Your task to perform on an android device: set the stopwatch Image 0: 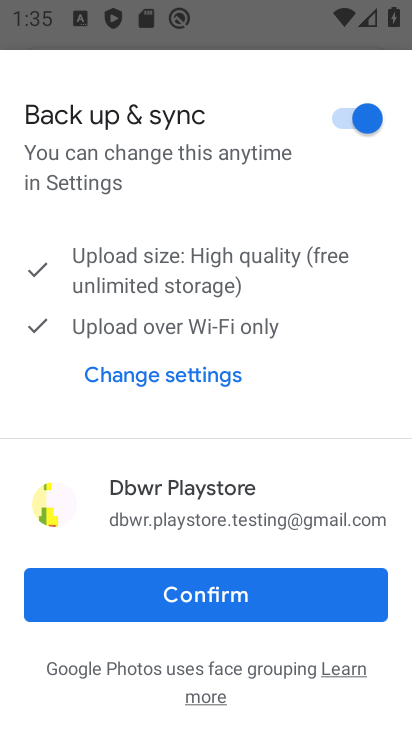
Step 0: press back button
Your task to perform on an android device: set the stopwatch Image 1: 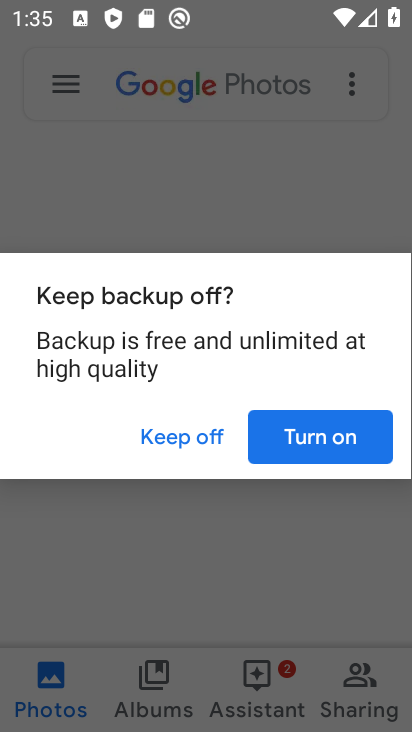
Step 1: press home button
Your task to perform on an android device: set the stopwatch Image 2: 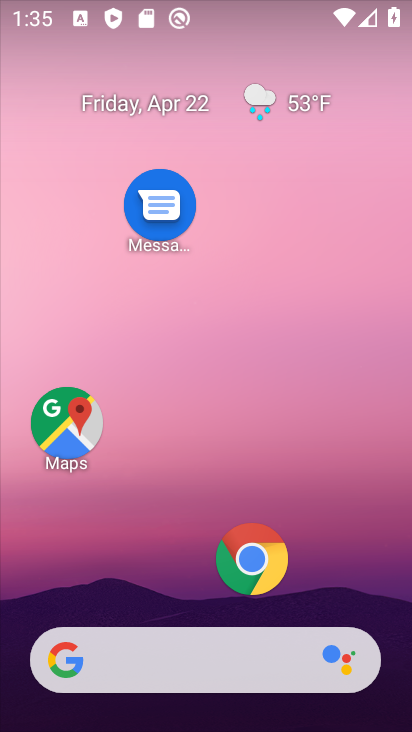
Step 2: drag from (234, 621) to (264, 275)
Your task to perform on an android device: set the stopwatch Image 3: 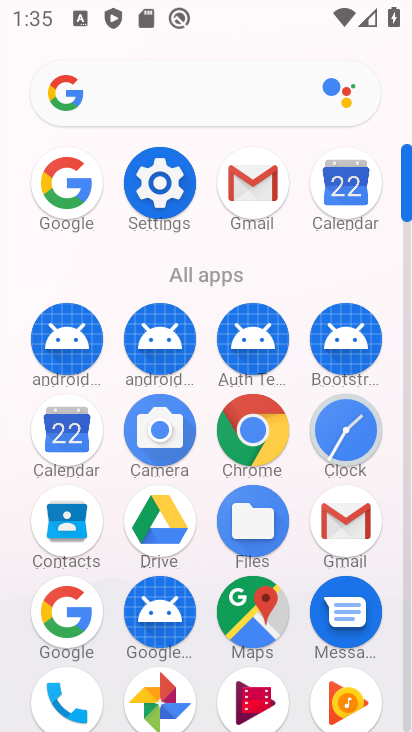
Step 3: click (351, 442)
Your task to perform on an android device: set the stopwatch Image 4: 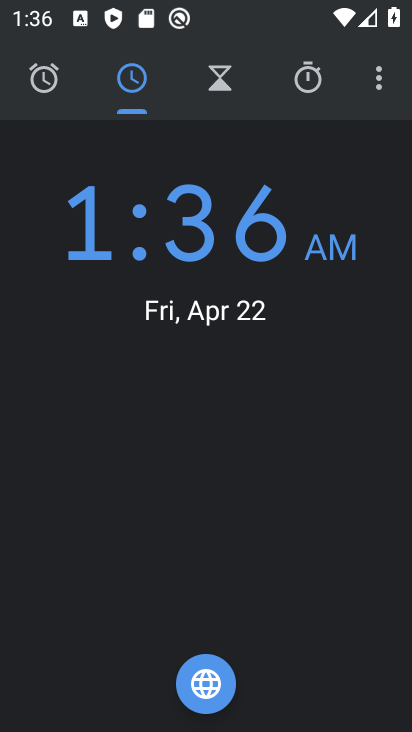
Step 4: click (308, 81)
Your task to perform on an android device: set the stopwatch Image 5: 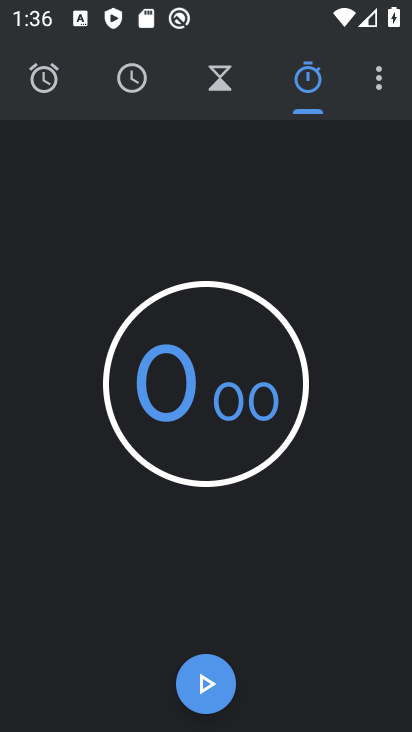
Step 5: click (203, 689)
Your task to perform on an android device: set the stopwatch Image 6: 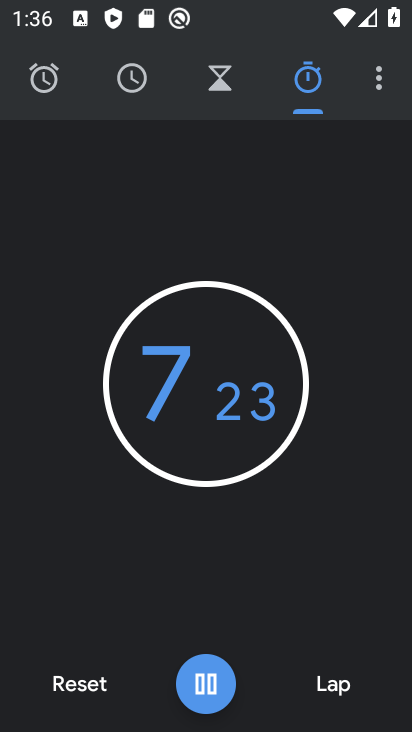
Step 6: click (198, 678)
Your task to perform on an android device: set the stopwatch Image 7: 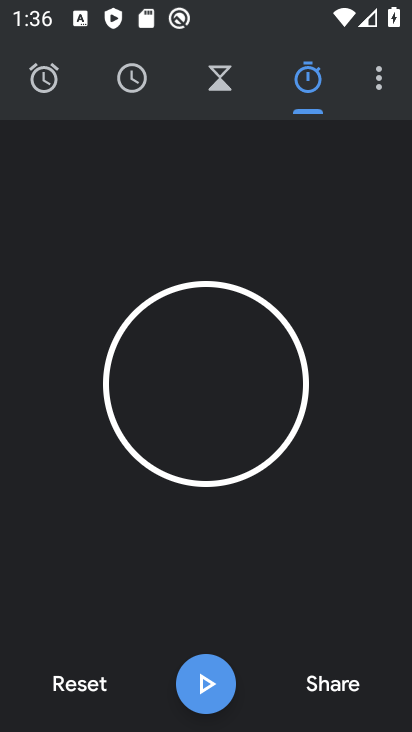
Step 7: click (201, 681)
Your task to perform on an android device: set the stopwatch Image 8: 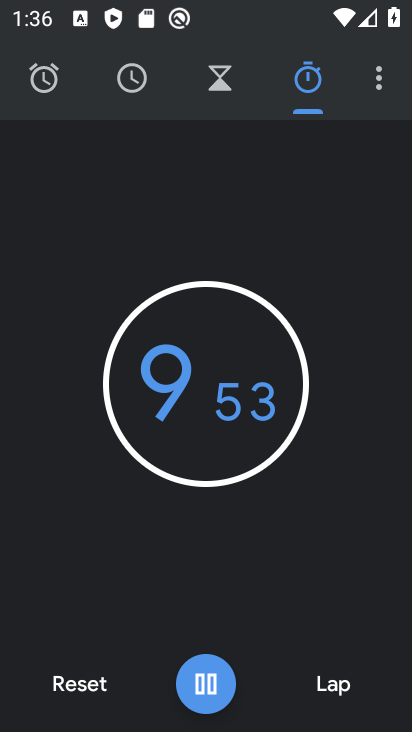
Step 8: task complete